Your task to perform on an android device: Clear all items from cart on costco.com. Add "usb-a" to the cart on costco.com, then select checkout. Image 0: 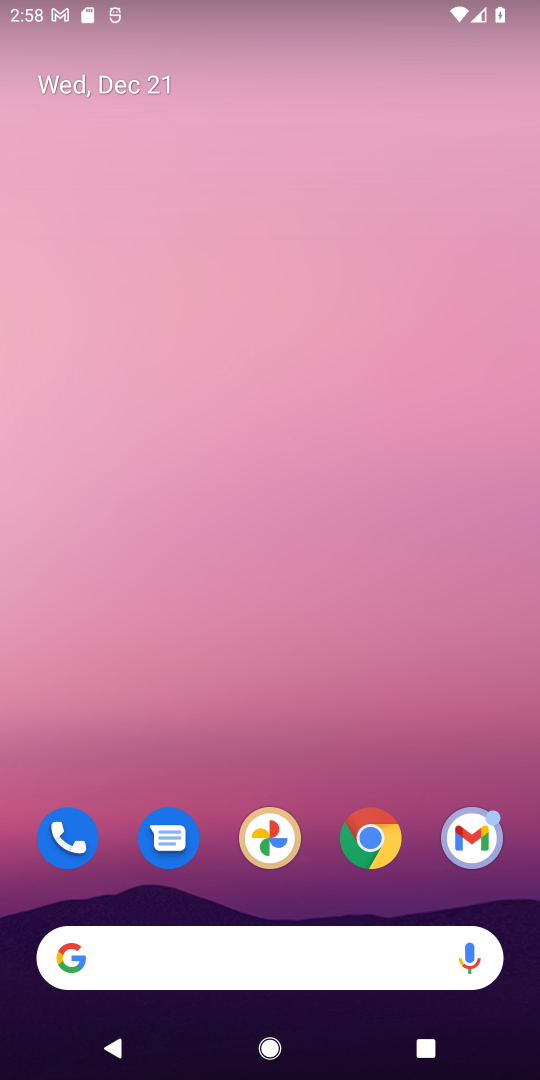
Step 0: click (340, 955)
Your task to perform on an android device: Clear all items from cart on costco.com. Add "usb-a" to the cart on costco.com, then select checkout. Image 1: 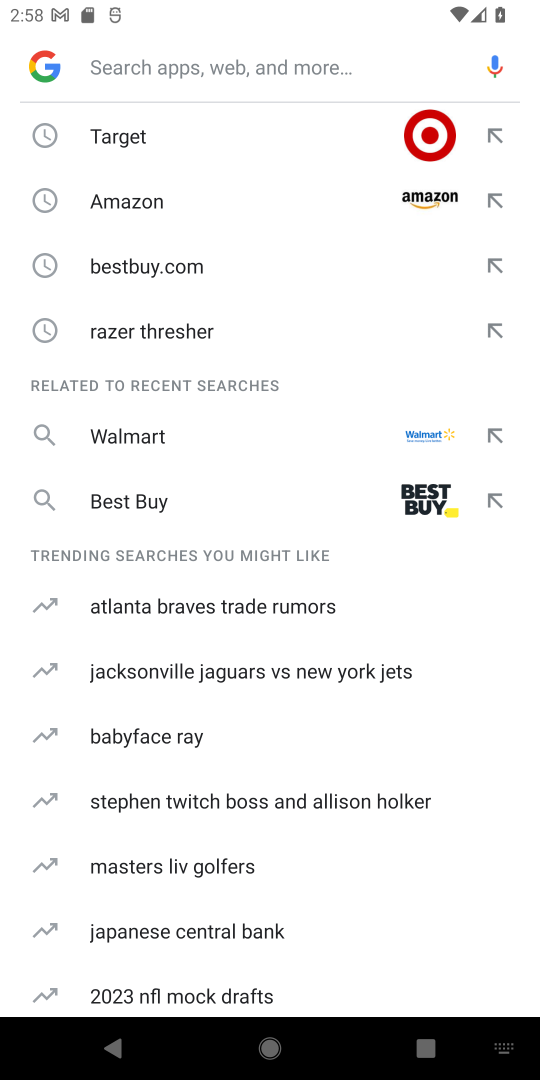
Step 1: type "costco"
Your task to perform on an android device: Clear all items from cart on costco.com. Add "usb-a" to the cart on costco.com, then select checkout. Image 2: 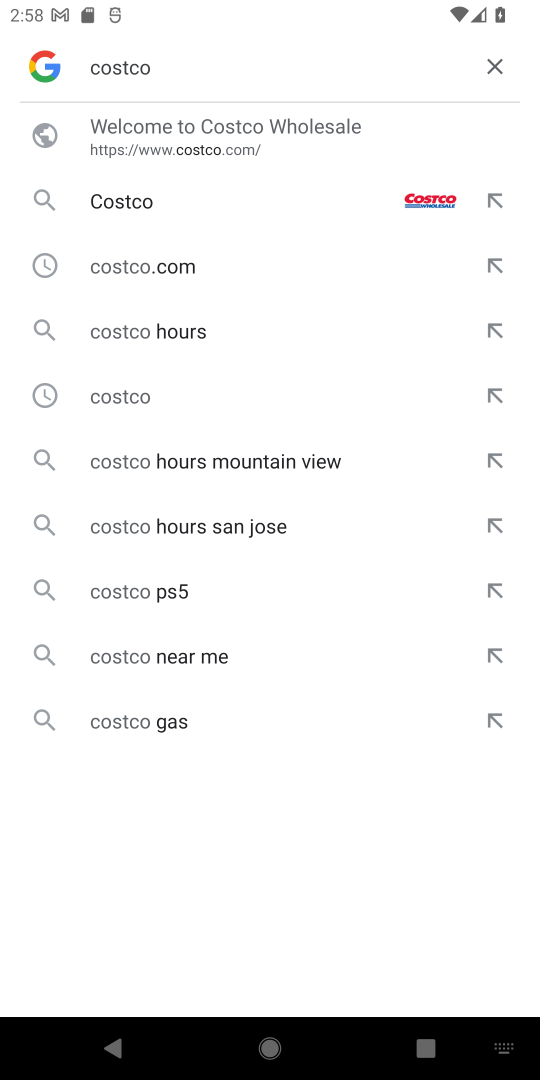
Step 2: click (193, 142)
Your task to perform on an android device: Clear all items from cart on costco.com. Add "usb-a" to the cart on costco.com, then select checkout. Image 3: 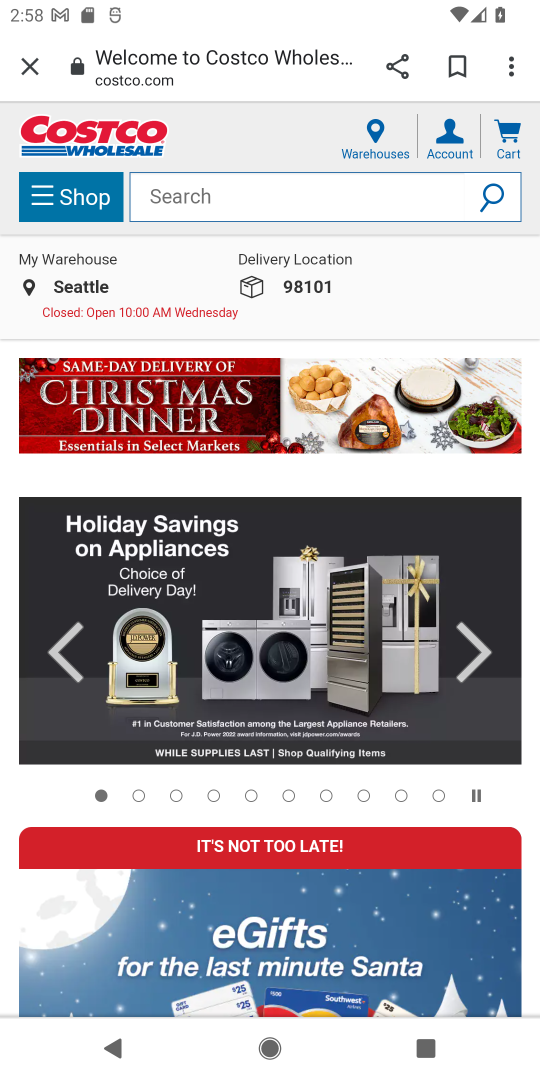
Step 3: click (209, 201)
Your task to perform on an android device: Clear all items from cart on costco.com. Add "usb-a" to the cart on costco.com, then select checkout. Image 4: 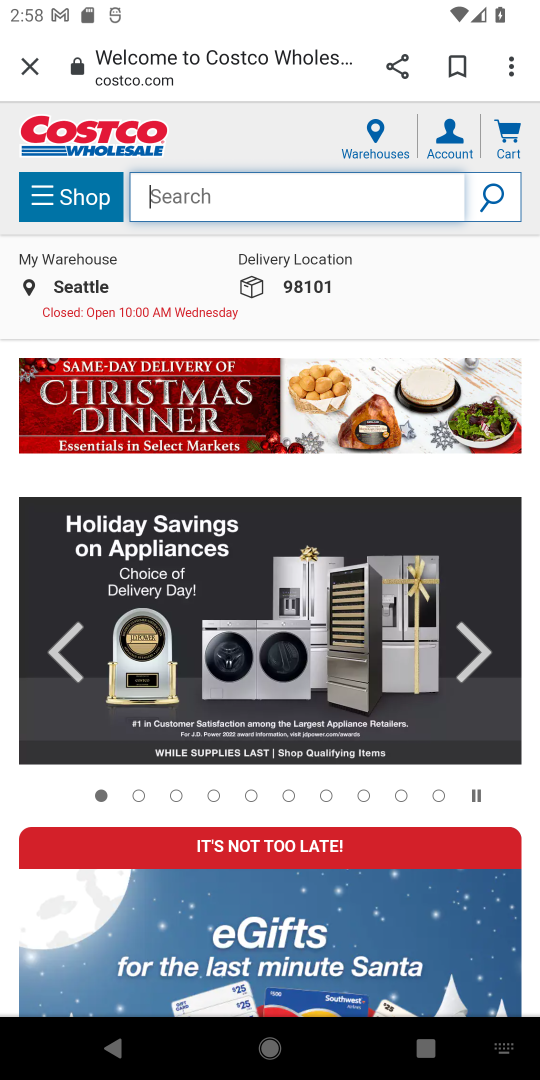
Step 4: type "usb-a "
Your task to perform on an android device: Clear all items from cart on costco.com. Add "usb-a" to the cart on costco.com, then select checkout. Image 5: 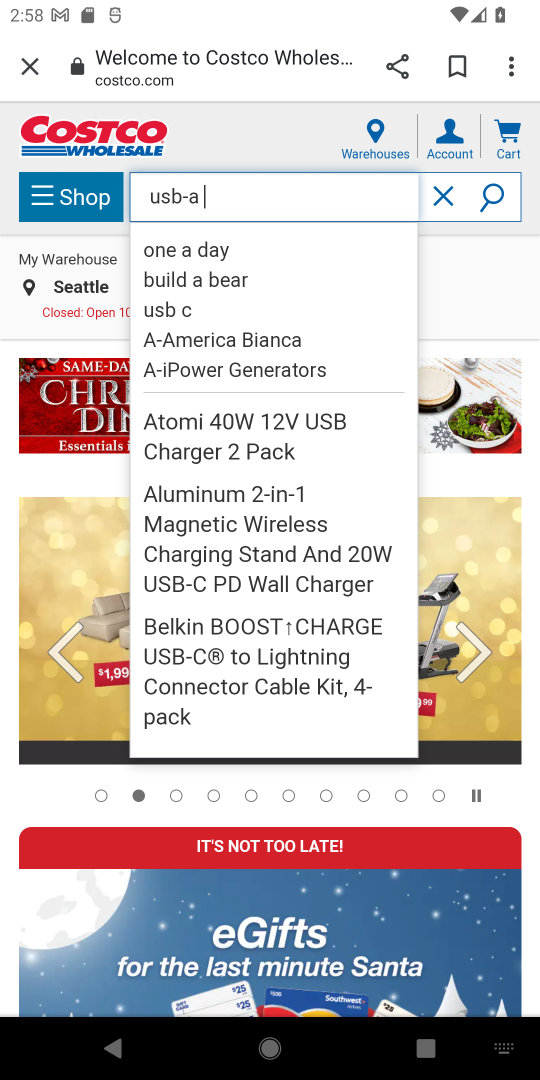
Step 5: click (496, 196)
Your task to perform on an android device: Clear all items from cart on costco.com. Add "usb-a" to the cart on costco.com, then select checkout. Image 6: 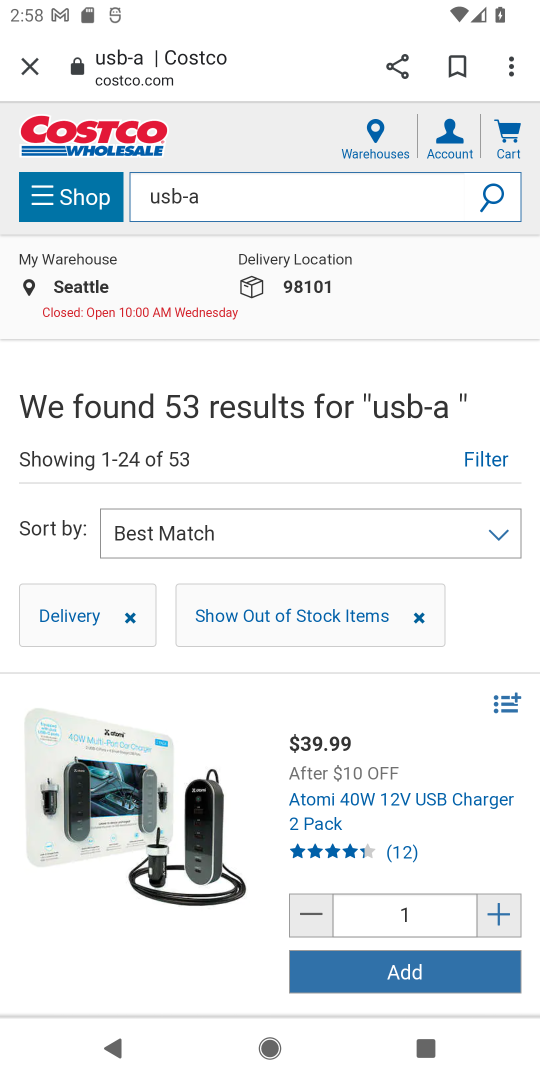
Step 6: click (370, 968)
Your task to perform on an android device: Clear all items from cart on costco.com. Add "usb-a" to the cart on costco.com, then select checkout. Image 7: 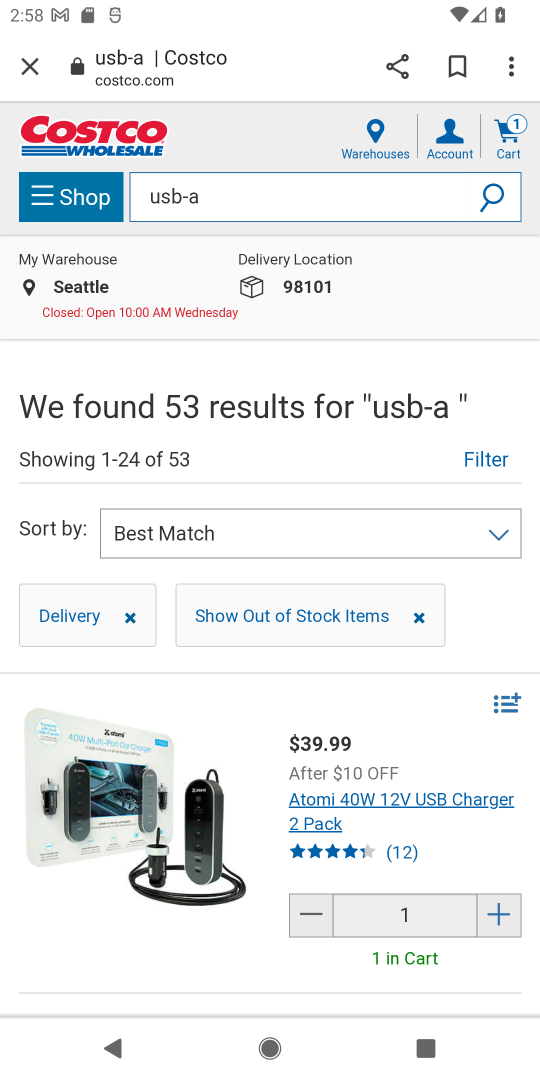
Step 7: click (295, 741)
Your task to perform on an android device: Clear all items from cart on costco.com. Add "usb-a" to the cart on costco.com, then select checkout. Image 8: 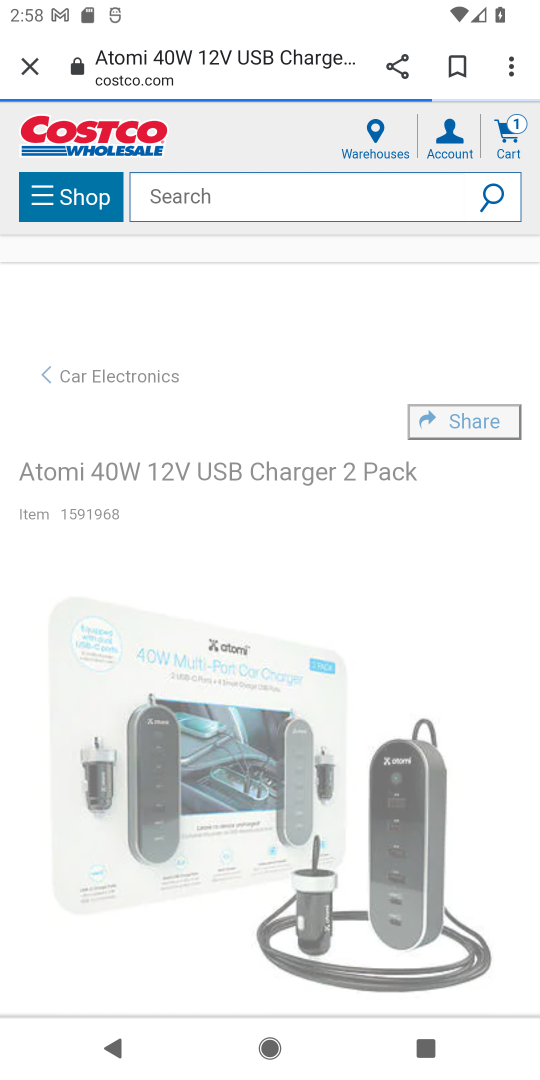
Step 8: drag from (233, 822) to (234, 429)
Your task to perform on an android device: Clear all items from cart on costco.com. Add "usb-a" to the cart on costco.com, then select checkout. Image 9: 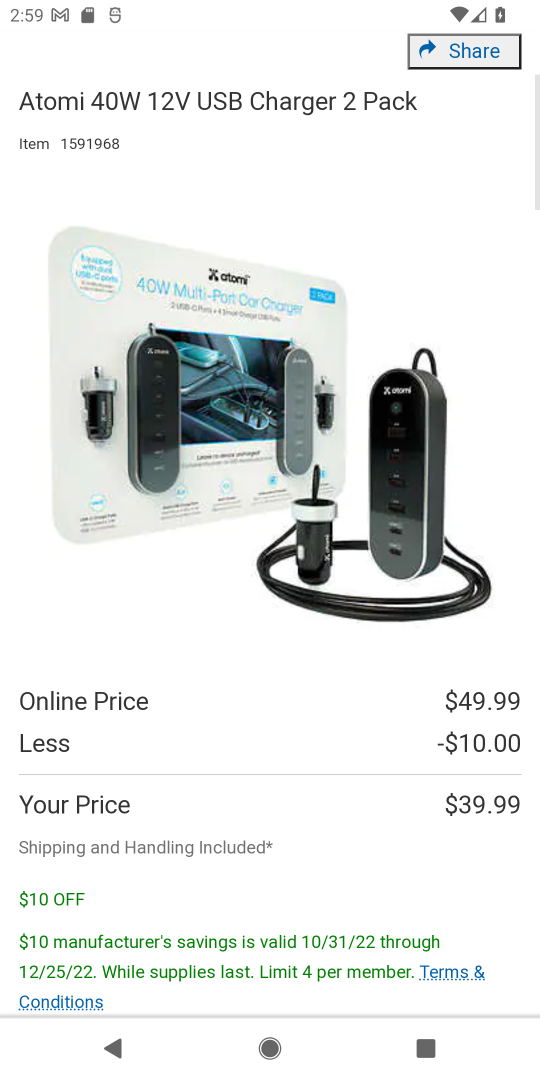
Step 9: drag from (295, 785) to (325, 471)
Your task to perform on an android device: Clear all items from cart on costco.com. Add "usb-a" to the cart on costco.com, then select checkout. Image 10: 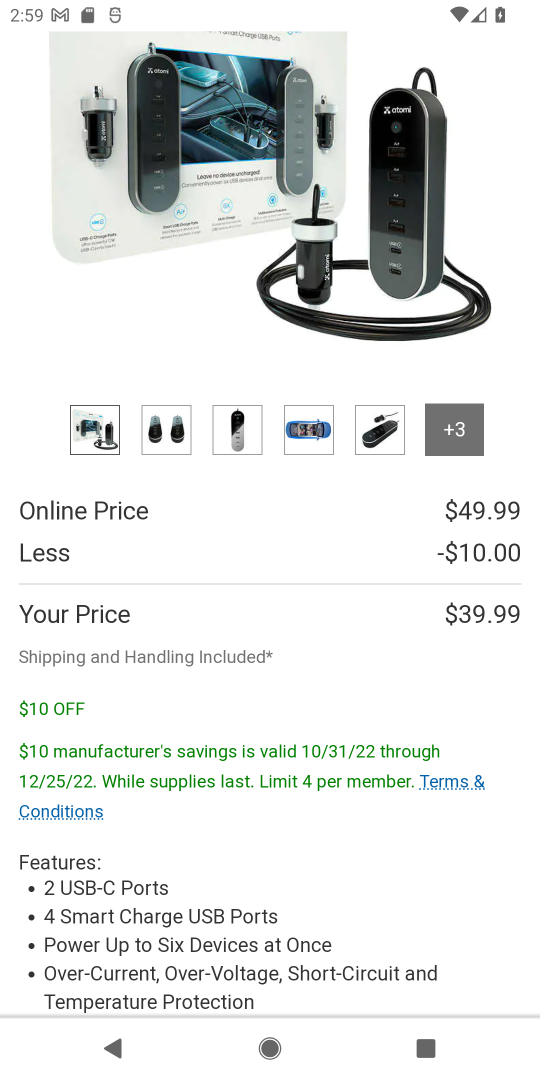
Step 10: drag from (302, 861) to (234, 245)
Your task to perform on an android device: Clear all items from cart on costco.com. Add "usb-a" to the cart on costco.com, then select checkout. Image 11: 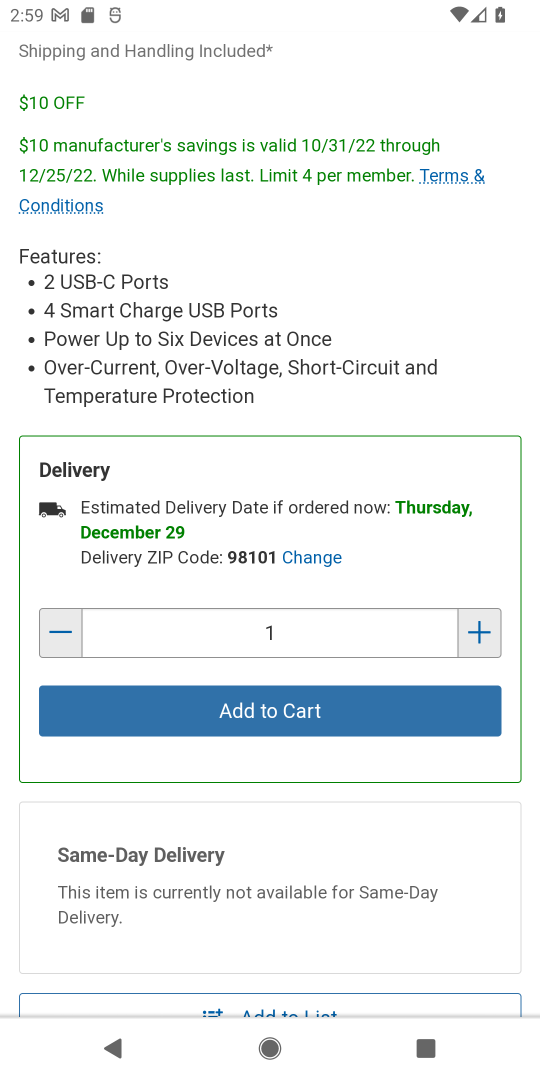
Step 11: click (331, 722)
Your task to perform on an android device: Clear all items from cart on costco.com. Add "usb-a" to the cart on costco.com, then select checkout. Image 12: 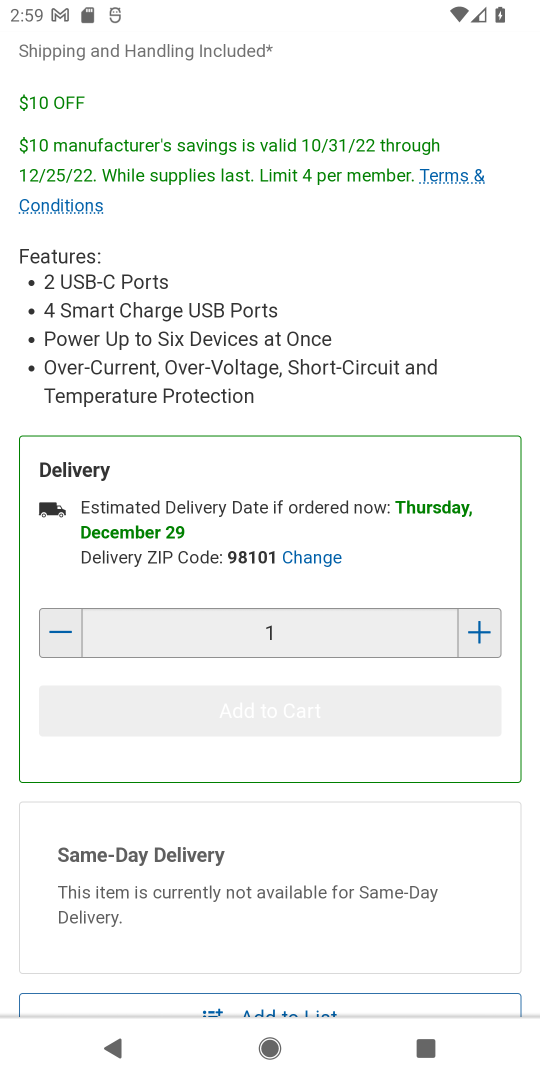
Step 12: task complete